Your task to perform on an android device: toggle translation in the chrome app Image 0: 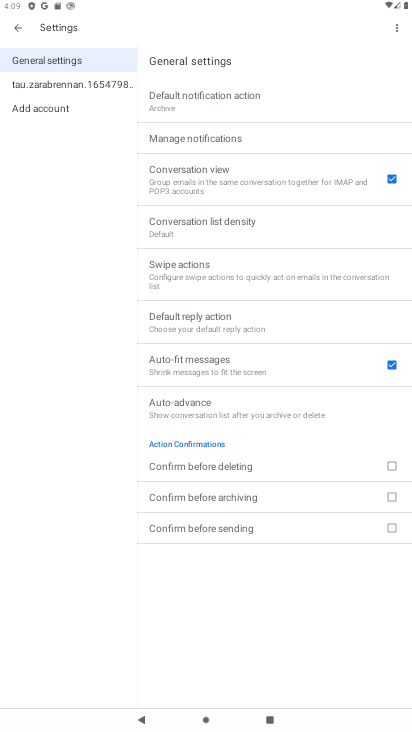
Step 0: press home button
Your task to perform on an android device: toggle translation in the chrome app Image 1: 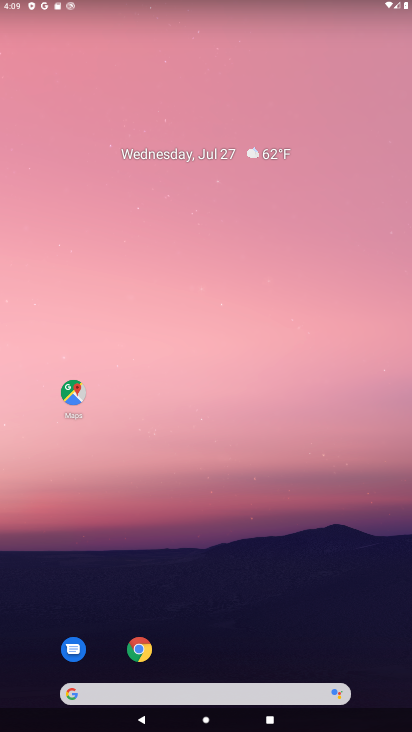
Step 1: click (141, 650)
Your task to perform on an android device: toggle translation in the chrome app Image 2: 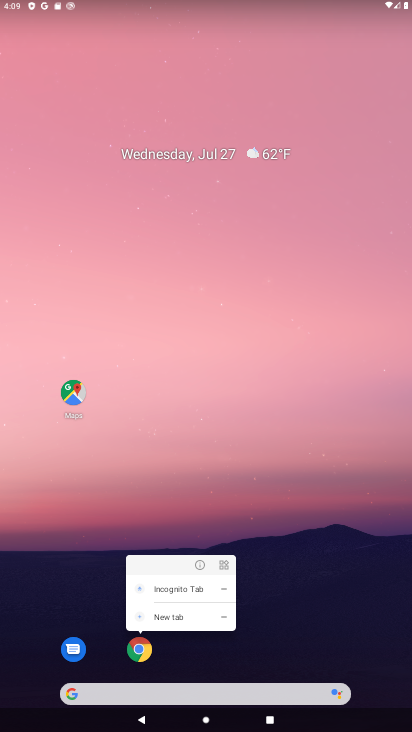
Step 2: click (141, 650)
Your task to perform on an android device: toggle translation in the chrome app Image 3: 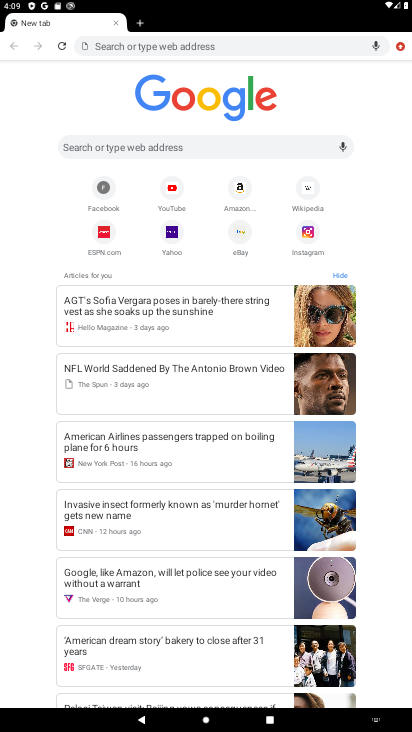
Step 3: task complete